Your task to perform on an android device: What's the weather going to be tomorrow? Image 0: 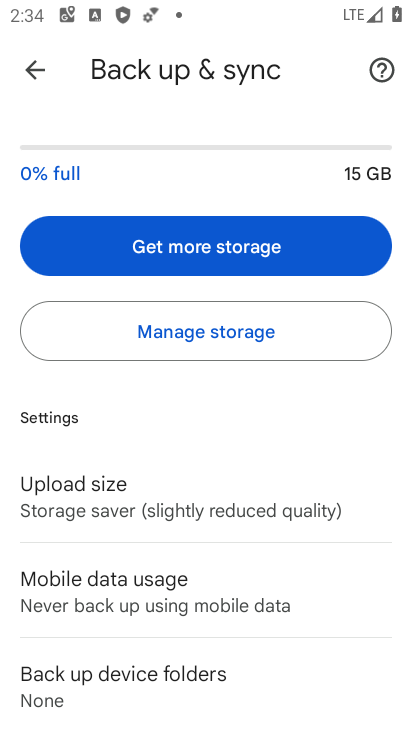
Step 0: drag from (166, 643) to (189, 121)
Your task to perform on an android device: What's the weather going to be tomorrow? Image 1: 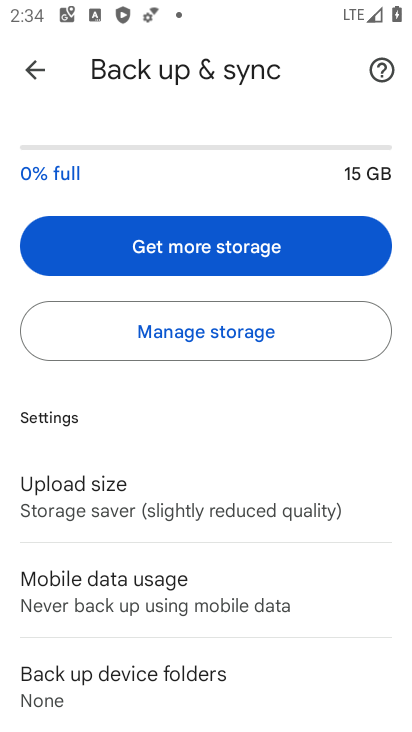
Step 1: press home button
Your task to perform on an android device: What's the weather going to be tomorrow? Image 2: 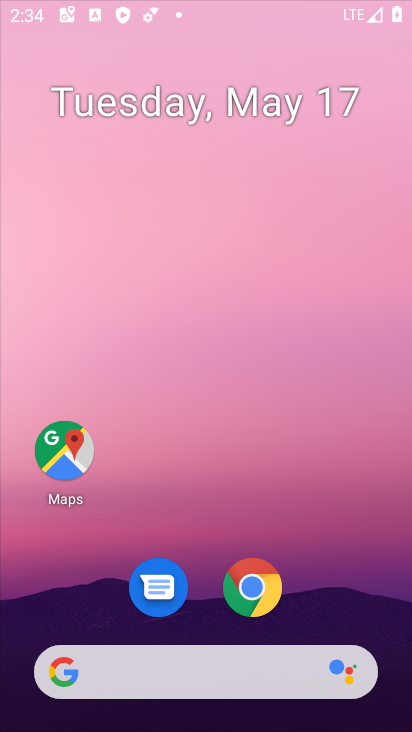
Step 2: drag from (204, 647) to (173, 71)
Your task to perform on an android device: What's the weather going to be tomorrow? Image 3: 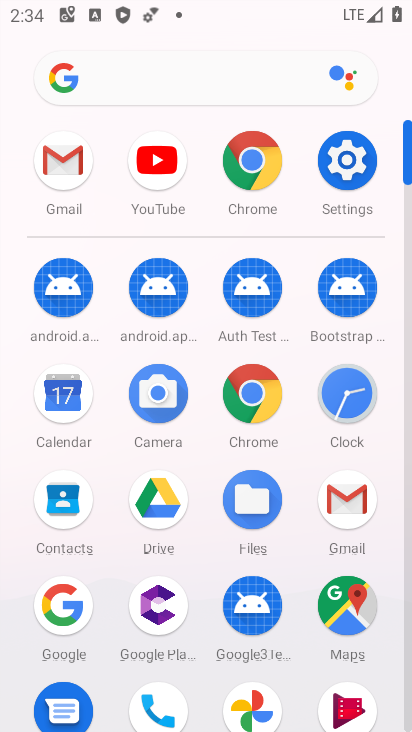
Step 3: click (187, 83)
Your task to perform on an android device: What's the weather going to be tomorrow? Image 4: 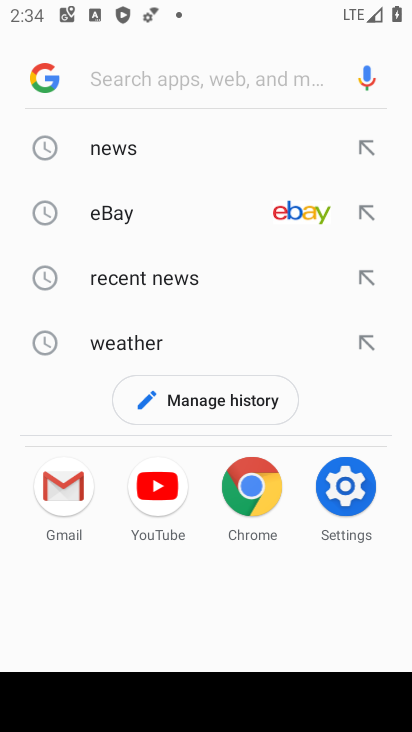
Step 4: type "waether going to be tomorrow"
Your task to perform on an android device: What's the weather going to be tomorrow? Image 5: 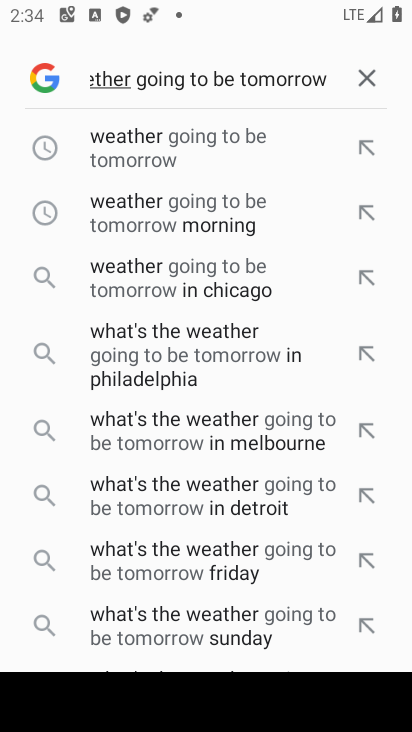
Step 5: click (138, 154)
Your task to perform on an android device: What's the weather going to be tomorrow? Image 6: 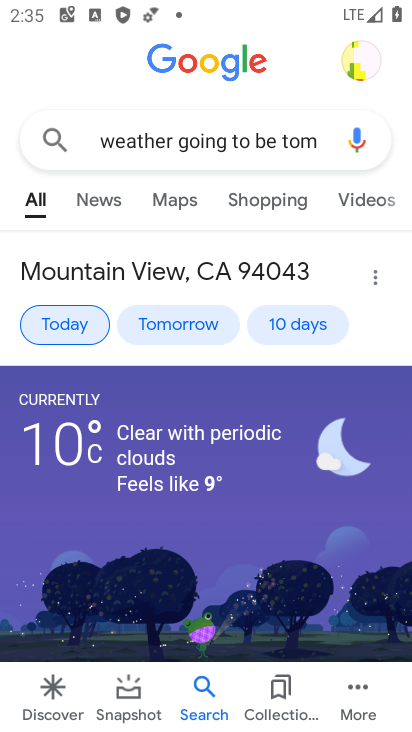
Step 6: task complete